Your task to perform on an android device: Clear all items from cart on walmart.com. Image 0: 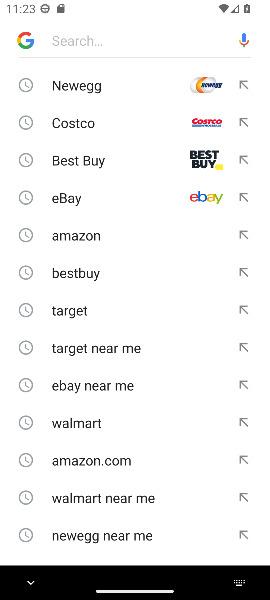
Step 0: type "walmart.com"
Your task to perform on an android device: Clear all items from cart on walmart.com. Image 1: 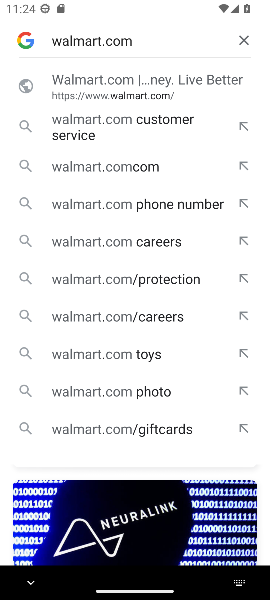
Step 1: click (98, 88)
Your task to perform on an android device: Clear all items from cart on walmart.com. Image 2: 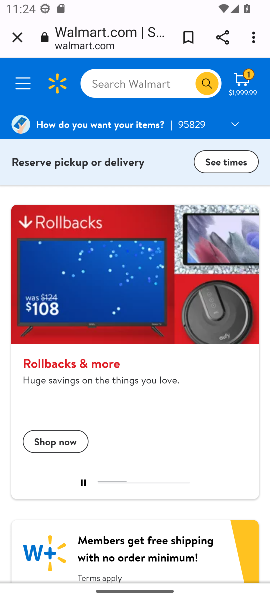
Step 2: click (247, 89)
Your task to perform on an android device: Clear all items from cart on walmart.com. Image 3: 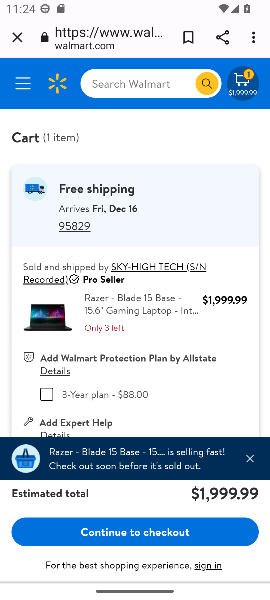
Step 3: click (250, 462)
Your task to perform on an android device: Clear all items from cart on walmart.com. Image 4: 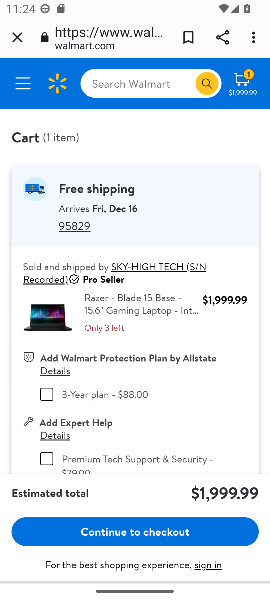
Step 4: drag from (97, 404) to (90, 242)
Your task to perform on an android device: Clear all items from cart on walmart.com. Image 5: 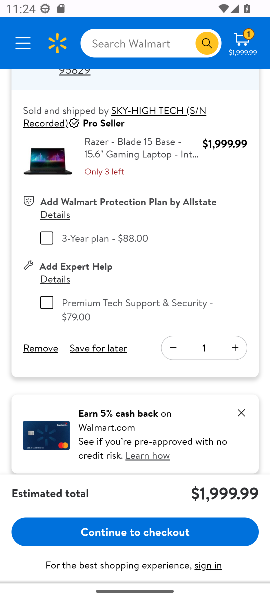
Step 5: click (32, 351)
Your task to perform on an android device: Clear all items from cart on walmart.com. Image 6: 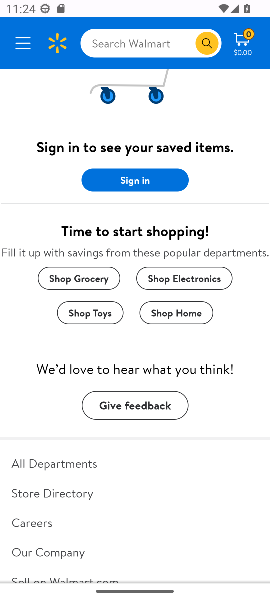
Step 6: task complete